Your task to perform on an android device: Clear the shopping cart on target.com. Image 0: 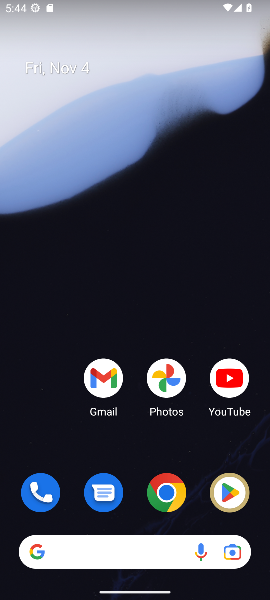
Step 0: drag from (136, 420) to (135, 48)
Your task to perform on an android device: Clear the shopping cart on target.com. Image 1: 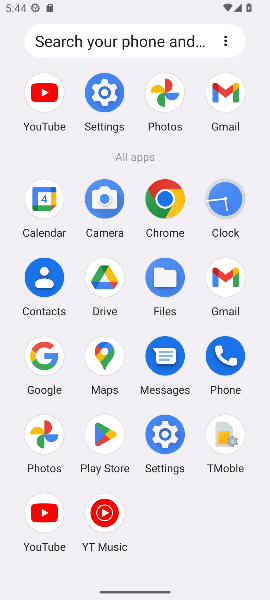
Step 1: click (162, 201)
Your task to perform on an android device: Clear the shopping cart on target.com. Image 2: 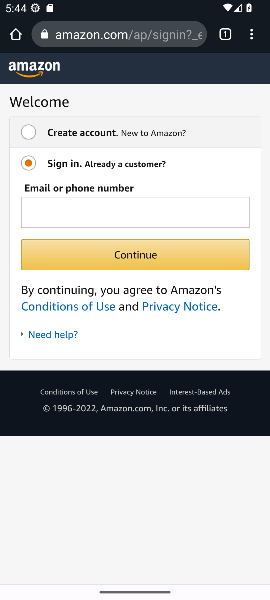
Step 2: click (142, 37)
Your task to perform on an android device: Clear the shopping cart on target.com. Image 3: 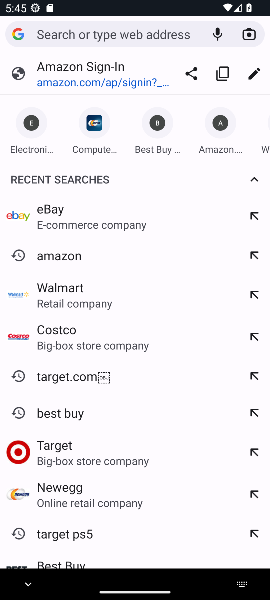
Step 3: type "target.com"
Your task to perform on an android device: Clear the shopping cart on target.com. Image 4: 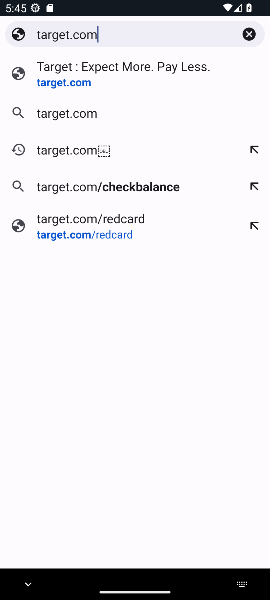
Step 4: press enter
Your task to perform on an android device: Clear the shopping cart on target.com. Image 5: 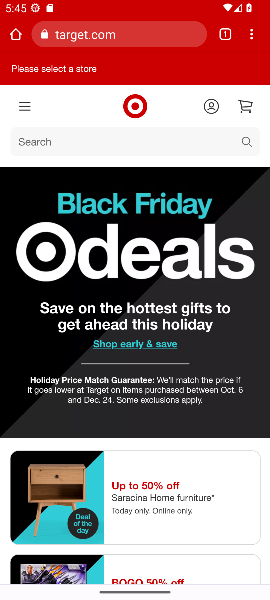
Step 5: click (247, 109)
Your task to perform on an android device: Clear the shopping cart on target.com. Image 6: 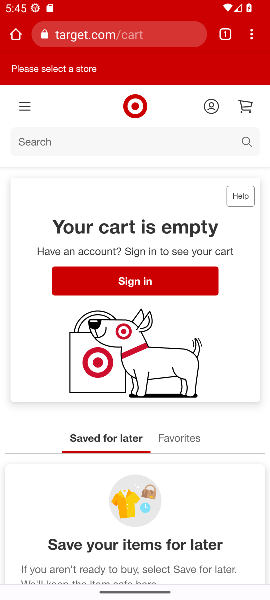
Step 6: task complete